Your task to perform on an android device: clear all cookies in the chrome app Image 0: 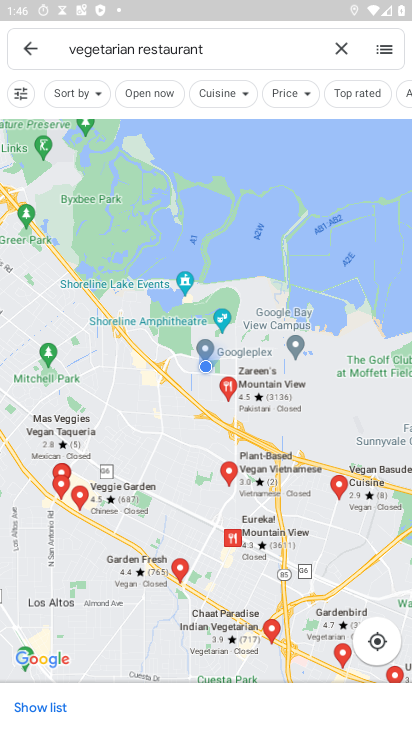
Step 0: press home button
Your task to perform on an android device: clear all cookies in the chrome app Image 1: 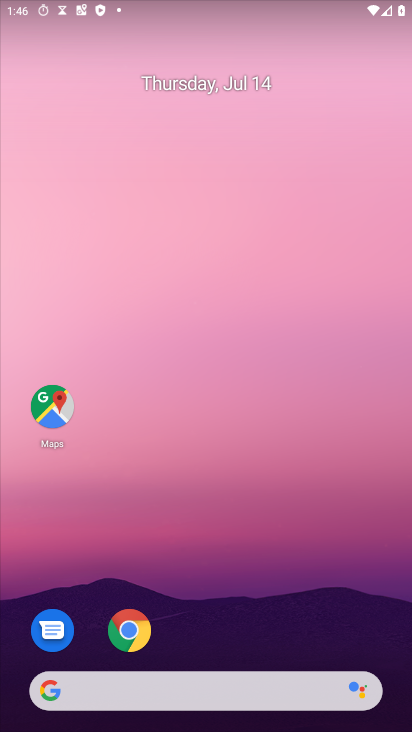
Step 1: click (138, 634)
Your task to perform on an android device: clear all cookies in the chrome app Image 2: 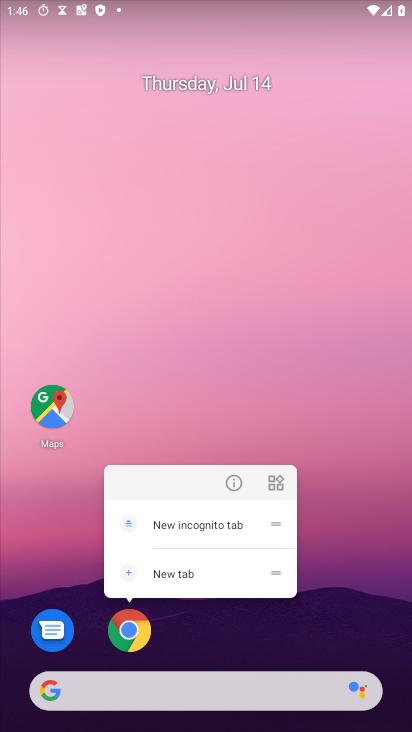
Step 2: click (144, 635)
Your task to perform on an android device: clear all cookies in the chrome app Image 3: 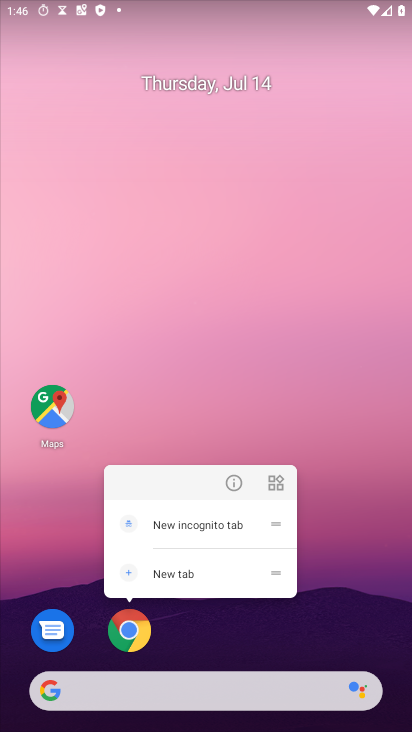
Step 3: click (135, 627)
Your task to perform on an android device: clear all cookies in the chrome app Image 4: 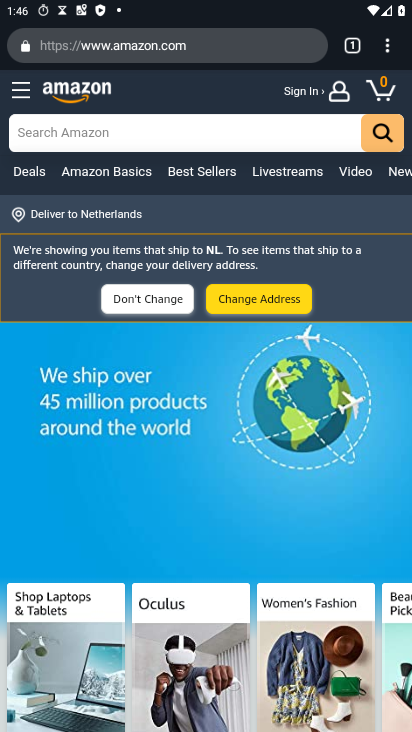
Step 4: task complete